Your task to perform on an android device: turn notification dots off Image 0: 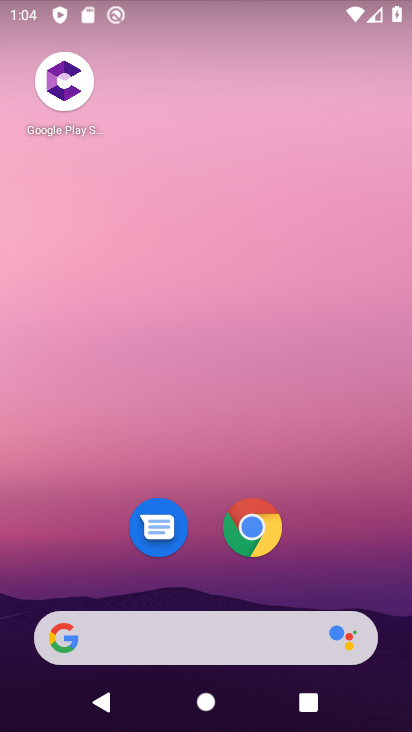
Step 0: drag from (310, 573) to (276, 77)
Your task to perform on an android device: turn notification dots off Image 1: 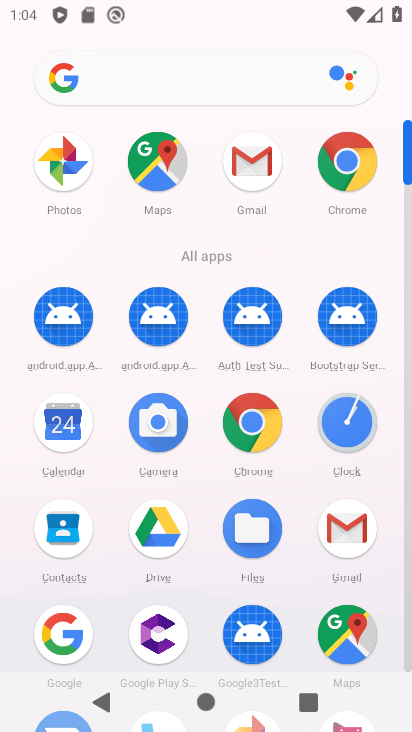
Step 1: drag from (298, 541) to (296, 144)
Your task to perform on an android device: turn notification dots off Image 2: 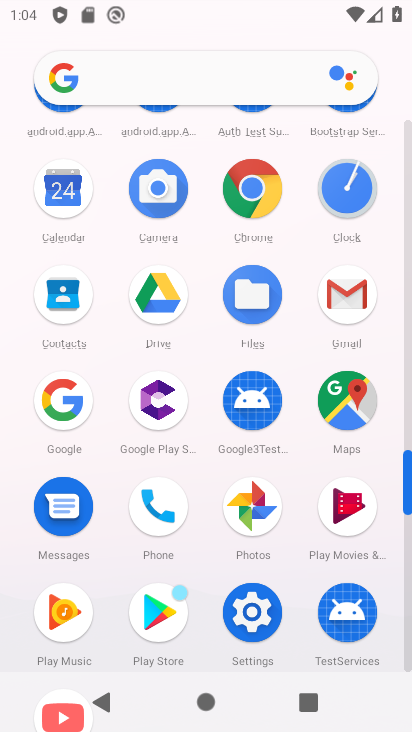
Step 2: click (248, 616)
Your task to perform on an android device: turn notification dots off Image 3: 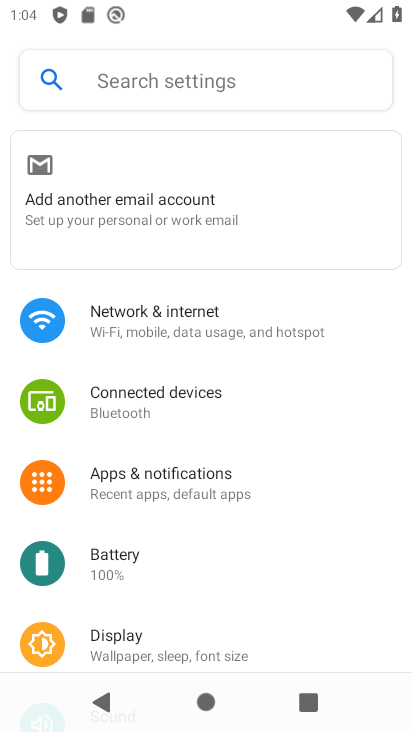
Step 3: click (117, 500)
Your task to perform on an android device: turn notification dots off Image 4: 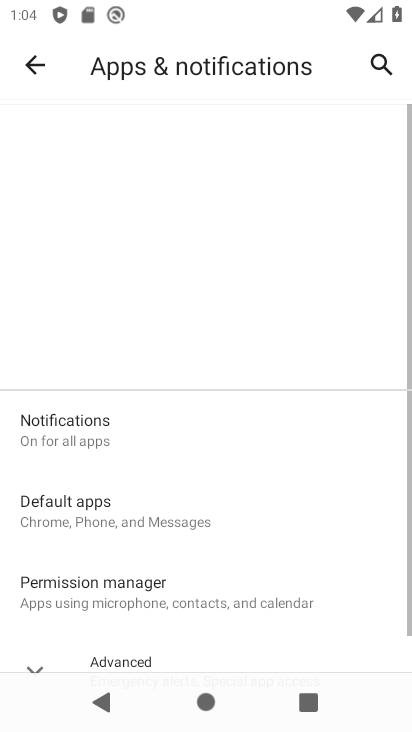
Step 4: drag from (144, 628) to (225, 271)
Your task to perform on an android device: turn notification dots off Image 5: 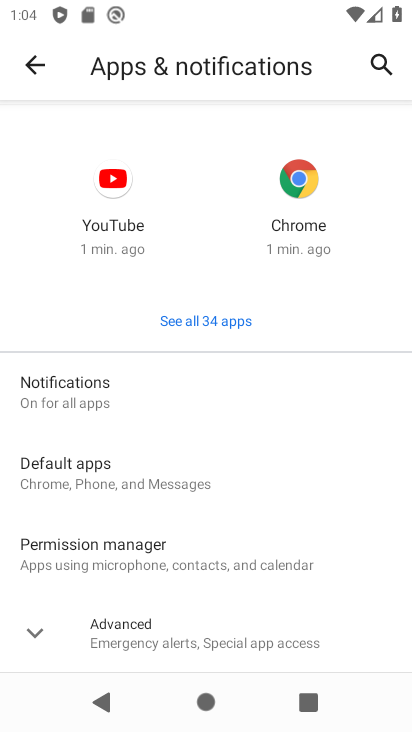
Step 5: click (80, 396)
Your task to perform on an android device: turn notification dots off Image 6: 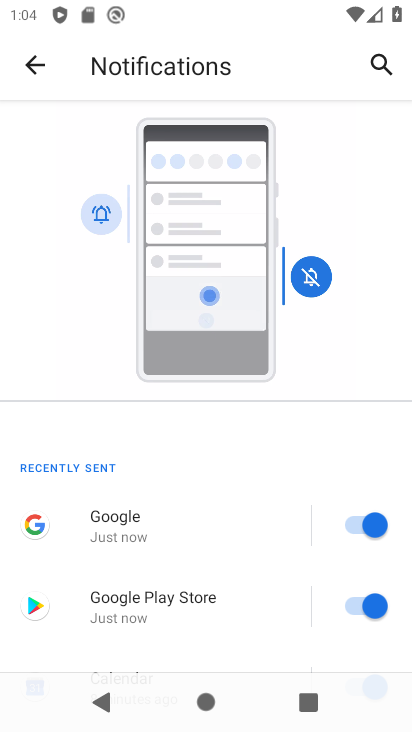
Step 6: drag from (198, 680) to (223, 258)
Your task to perform on an android device: turn notification dots off Image 7: 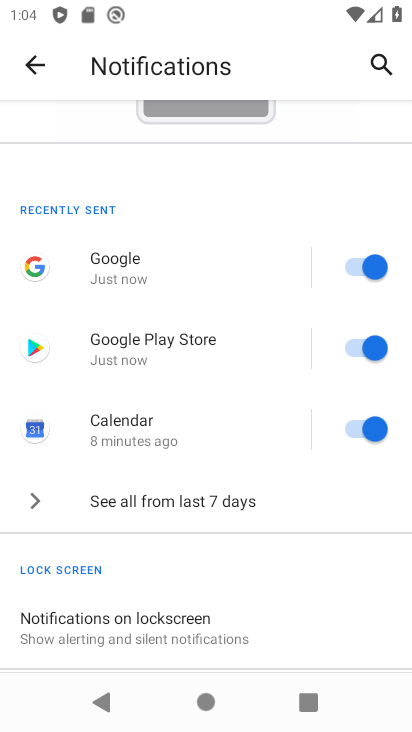
Step 7: click (147, 637)
Your task to perform on an android device: turn notification dots off Image 8: 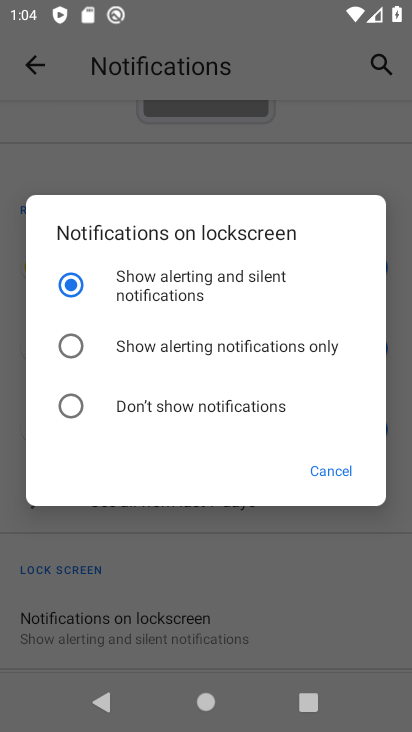
Step 8: click (323, 473)
Your task to perform on an android device: turn notification dots off Image 9: 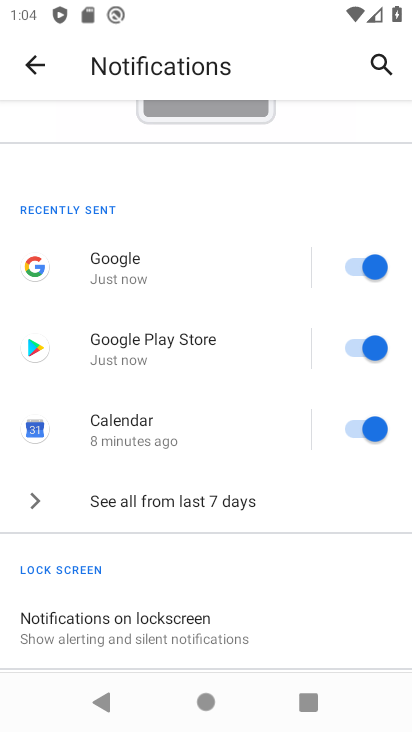
Step 9: drag from (167, 634) to (221, 158)
Your task to perform on an android device: turn notification dots off Image 10: 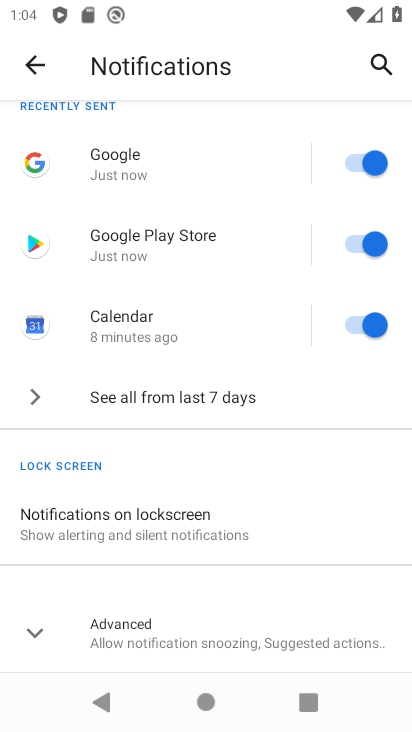
Step 10: click (107, 633)
Your task to perform on an android device: turn notification dots off Image 11: 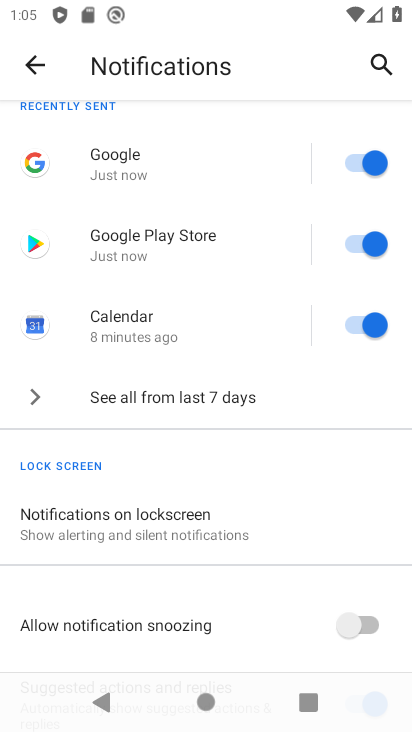
Step 11: drag from (106, 630) to (176, 171)
Your task to perform on an android device: turn notification dots off Image 12: 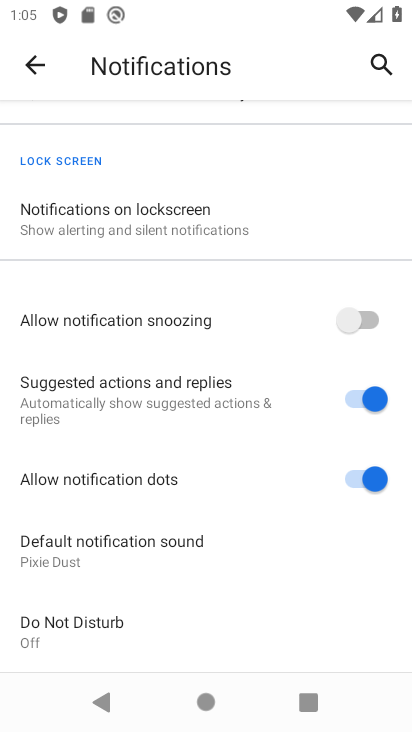
Step 12: click (346, 481)
Your task to perform on an android device: turn notification dots off Image 13: 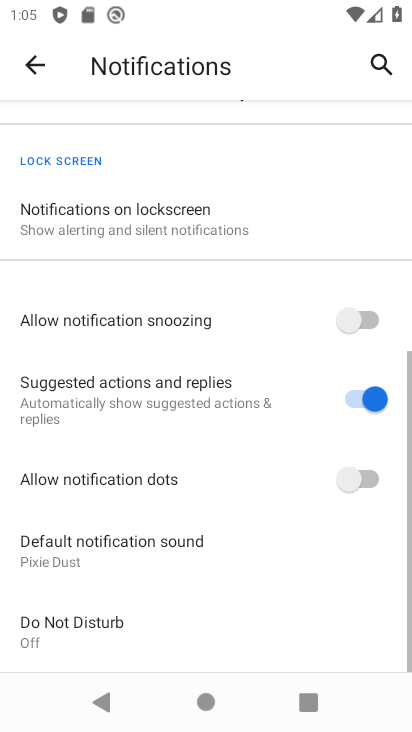
Step 13: task complete